Your task to perform on an android device: Go to sound settings Image 0: 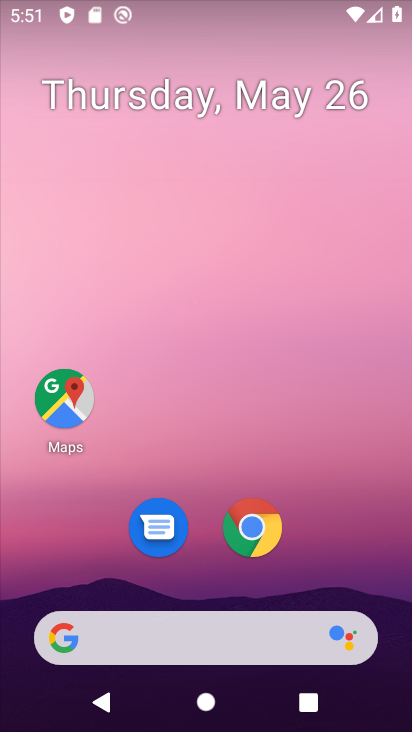
Step 0: drag from (197, 617) to (286, 38)
Your task to perform on an android device: Go to sound settings Image 1: 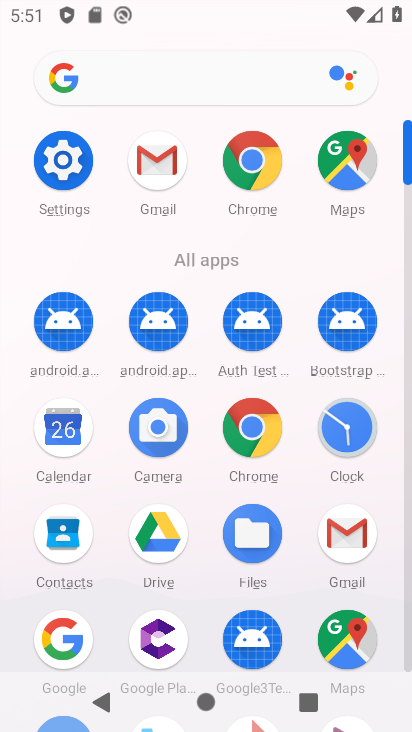
Step 1: click (48, 147)
Your task to perform on an android device: Go to sound settings Image 2: 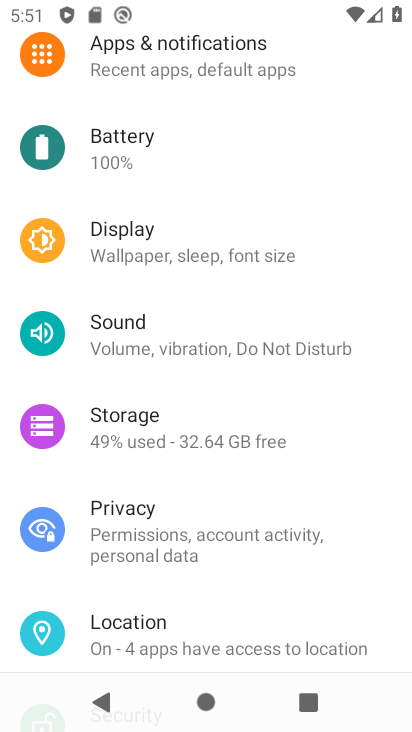
Step 2: click (133, 339)
Your task to perform on an android device: Go to sound settings Image 3: 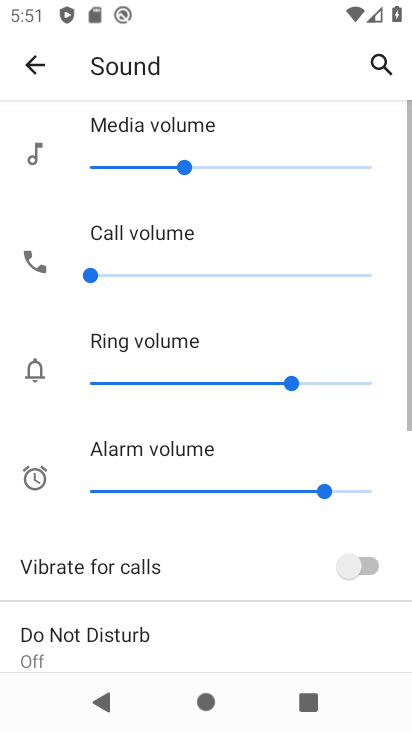
Step 3: task complete